Your task to perform on an android device: Open Amazon Image 0: 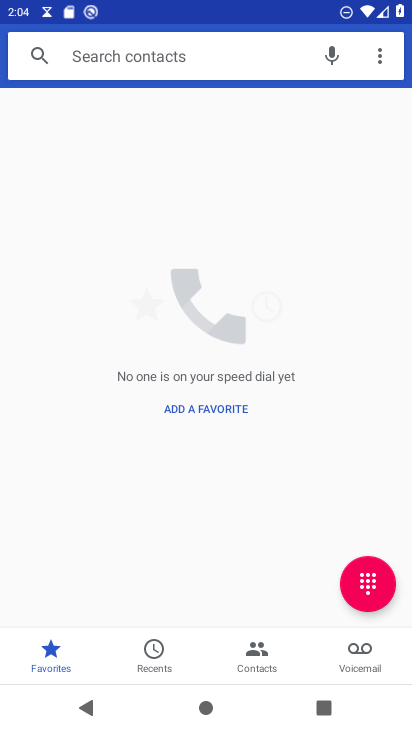
Step 0: press home button
Your task to perform on an android device: Open Amazon Image 1: 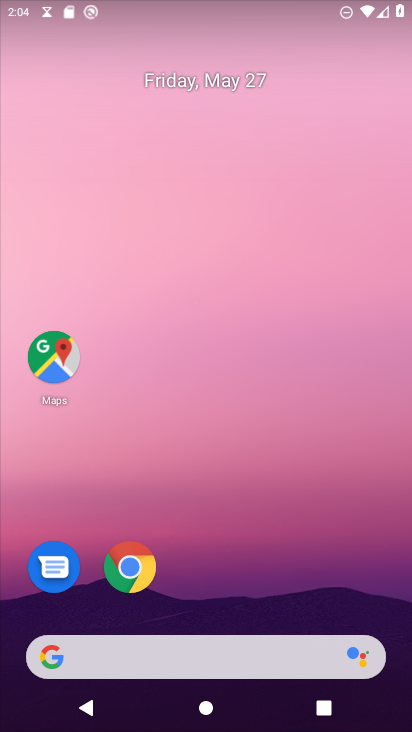
Step 1: drag from (237, 610) to (177, 95)
Your task to perform on an android device: Open Amazon Image 2: 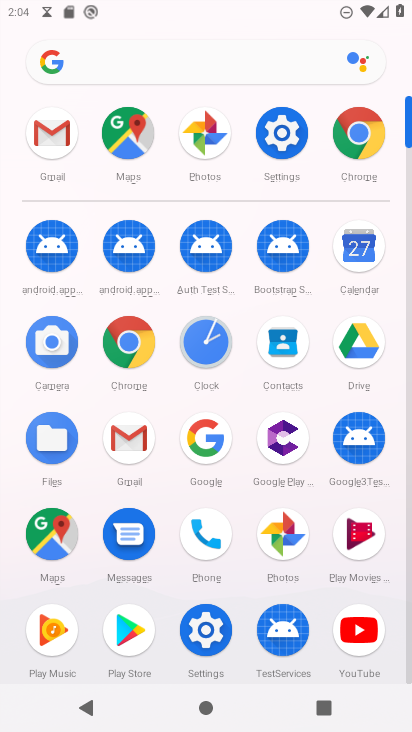
Step 2: click (372, 132)
Your task to perform on an android device: Open Amazon Image 3: 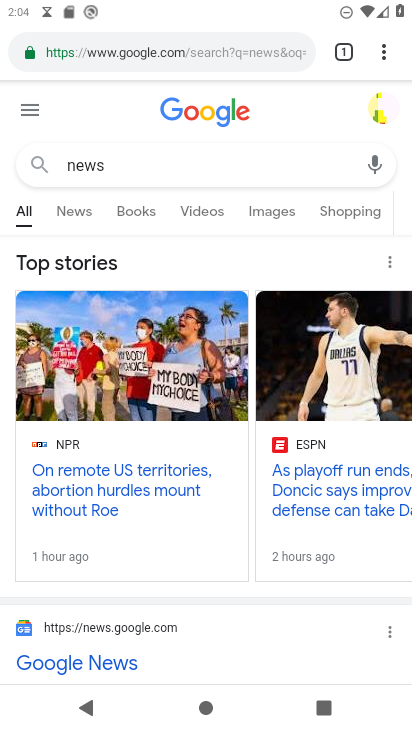
Step 3: click (343, 56)
Your task to perform on an android device: Open Amazon Image 4: 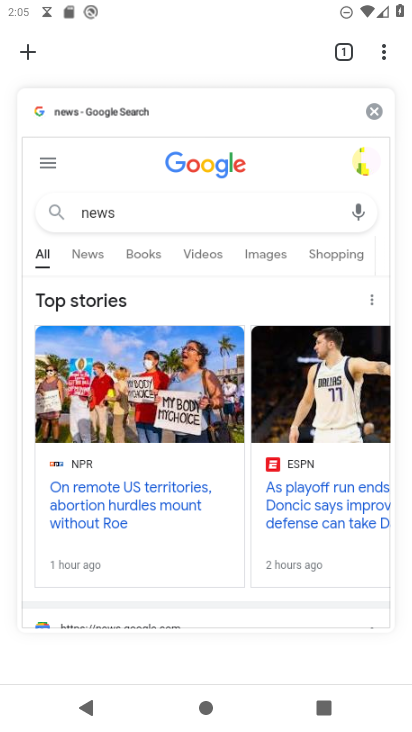
Step 4: click (19, 44)
Your task to perform on an android device: Open Amazon Image 5: 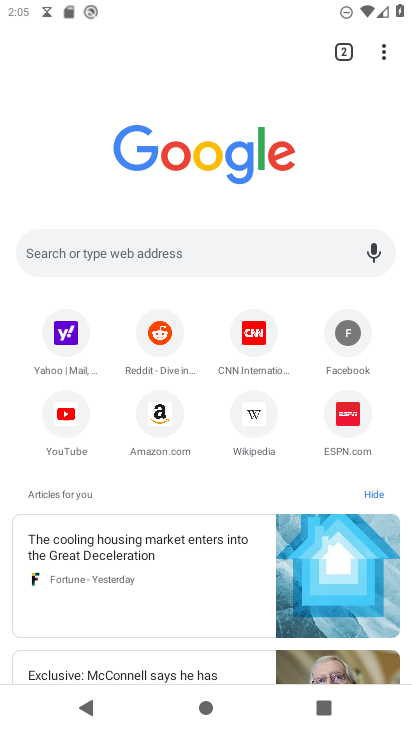
Step 5: click (143, 425)
Your task to perform on an android device: Open Amazon Image 6: 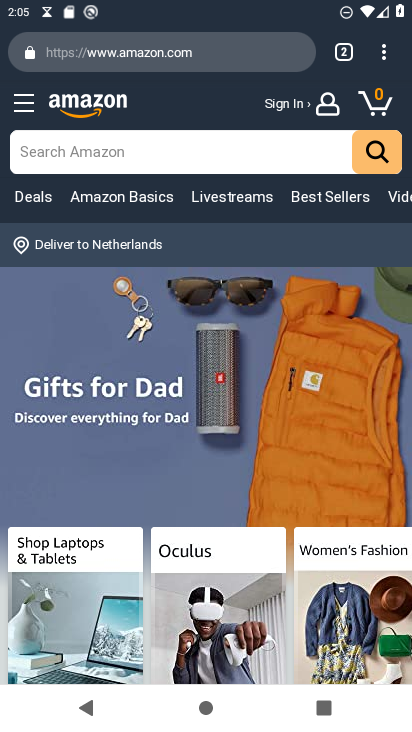
Step 6: task complete